Your task to perform on an android device: Open Google Maps Image 0: 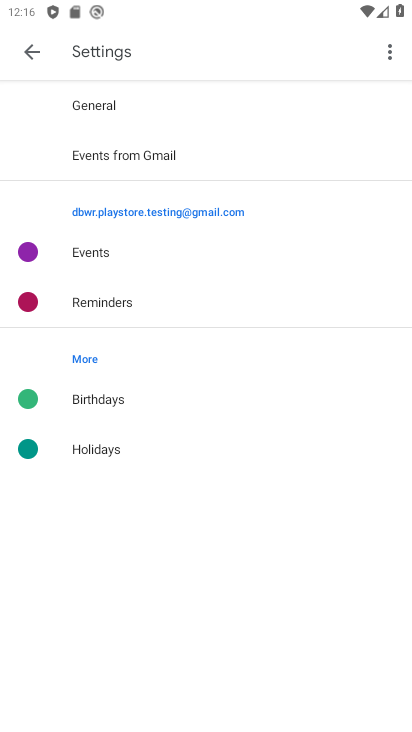
Step 0: press home button
Your task to perform on an android device: Open Google Maps Image 1: 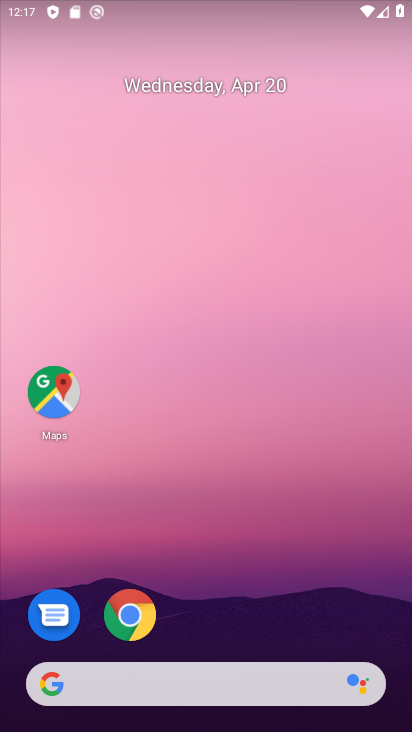
Step 1: drag from (260, 566) to (184, 113)
Your task to perform on an android device: Open Google Maps Image 2: 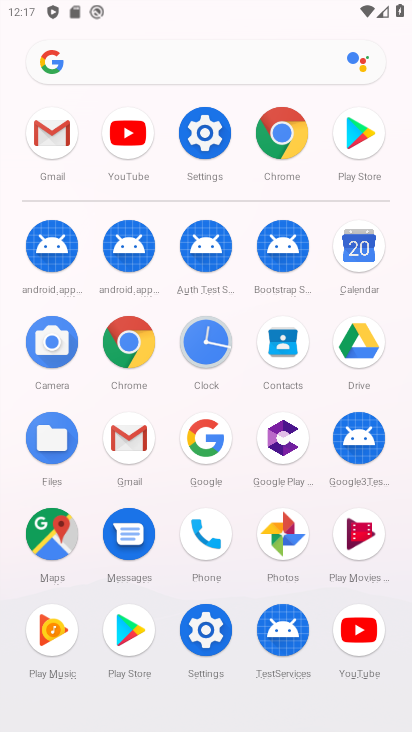
Step 2: click (53, 542)
Your task to perform on an android device: Open Google Maps Image 3: 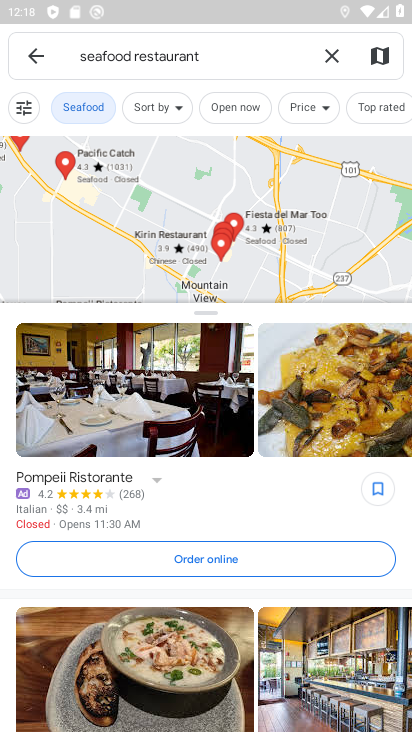
Step 3: task complete